Your task to perform on an android device: Open CNN.com Image 0: 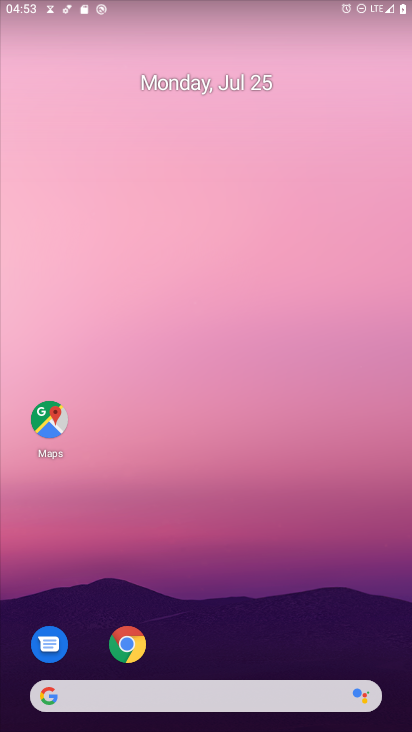
Step 0: press home button
Your task to perform on an android device: Open CNN.com Image 1: 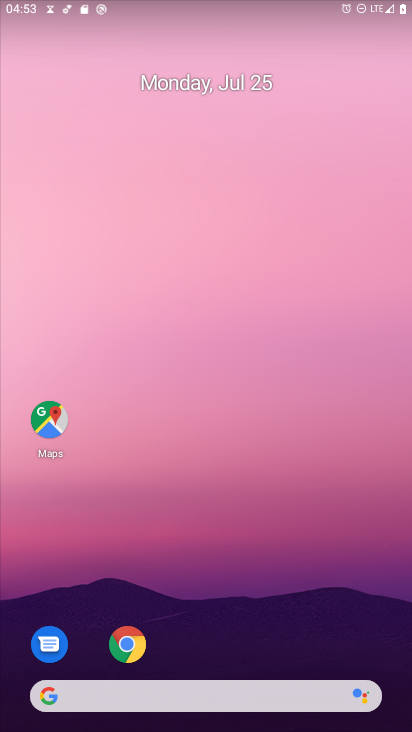
Step 1: click (49, 697)
Your task to perform on an android device: Open CNN.com Image 2: 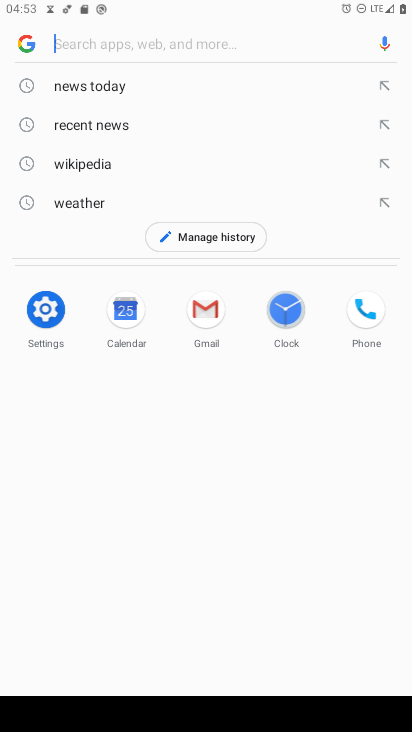
Step 2: type " CNN.com"
Your task to perform on an android device: Open CNN.com Image 3: 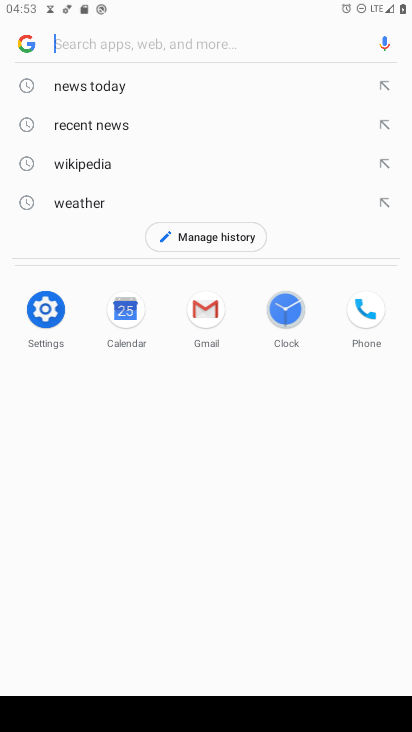
Step 3: click (107, 39)
Your task to perform on an android device: Open CNN.com Image 4: 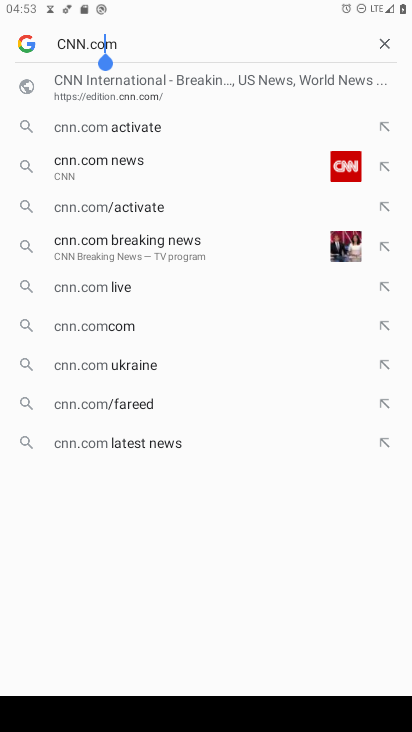
Step 4: click (108, 78)
Your task to perform on an android device: Open CNN.com Image 5: 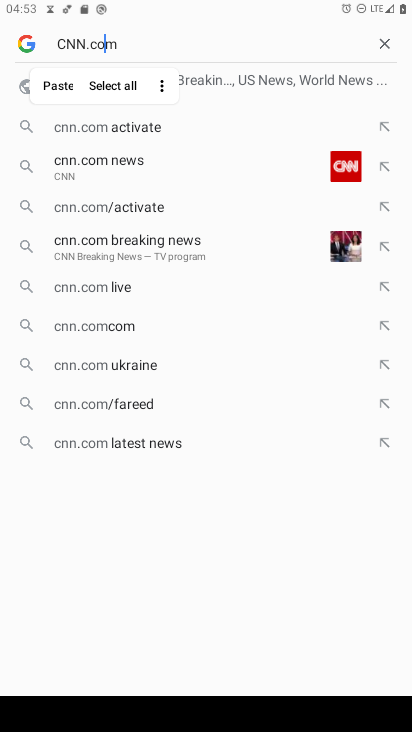
Step 5: press enter
Your task to perform on an android device: Open CNN.com Image 6: 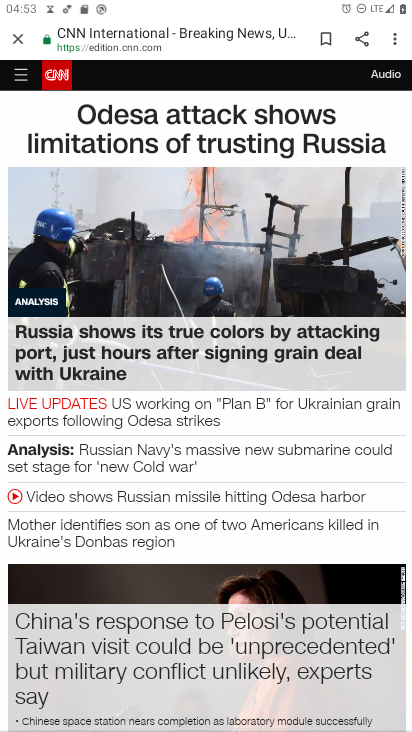
Step 6: task complete